Your task to perform on an android device: Show me recent news Image 0: 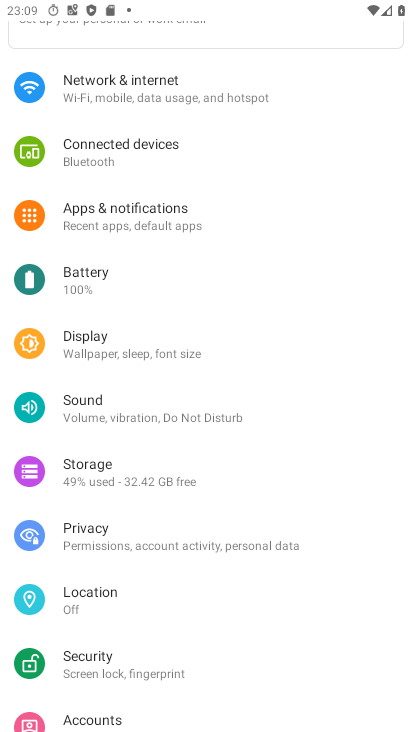
Step 0: press home button
Your task to perform on an android device: Show me recent news Image 1: 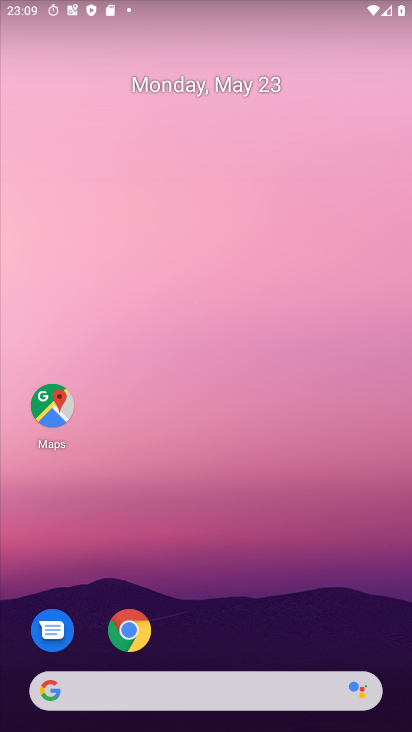
Step 1: click (92, 694)
Your task to perform on an android device: Show me recent news Image 2: 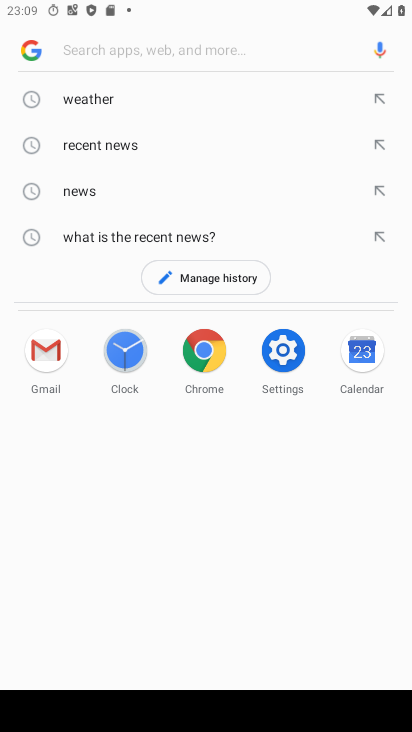
Step 2: click (105, 149)
Your task to perform on an android device: Show me recent news Image 3: 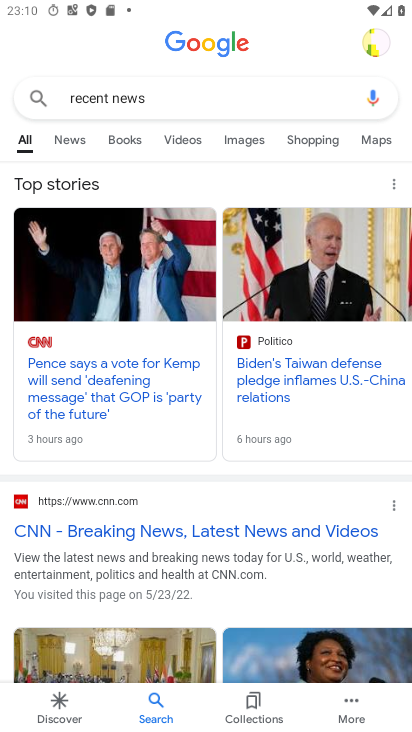
Step 3: click (106, 329)
Your task to perform on an android device: Show me recent news Image 4: 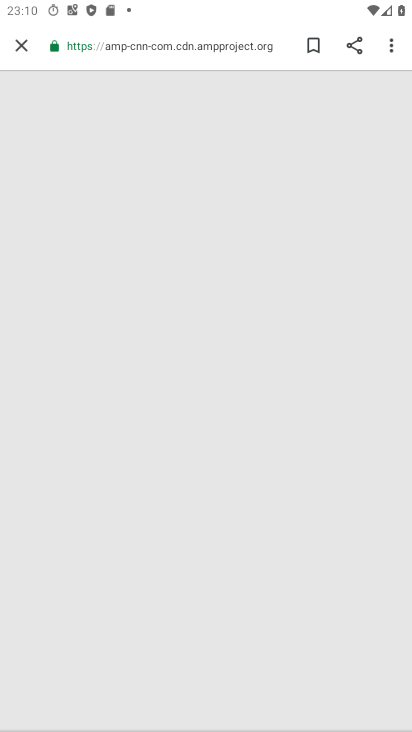
Step 4: click (17, 53)
Your task to perform on an android device: Show me recent news Image 5: 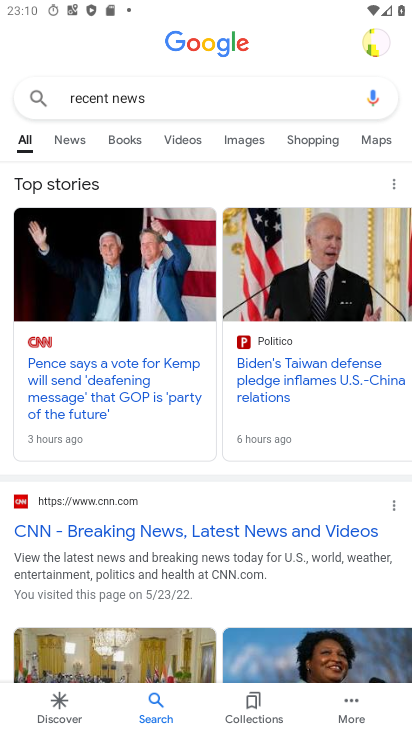
Step 5: click (120, 404)
Your task to perform on an android device: Show me recent news Image 6: 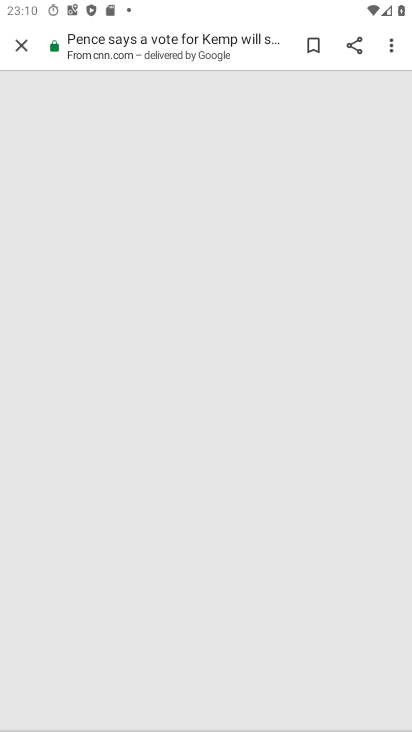
Step 6: click (15, 52)
Your task to perform on an android device: Show me recent news Image 7: 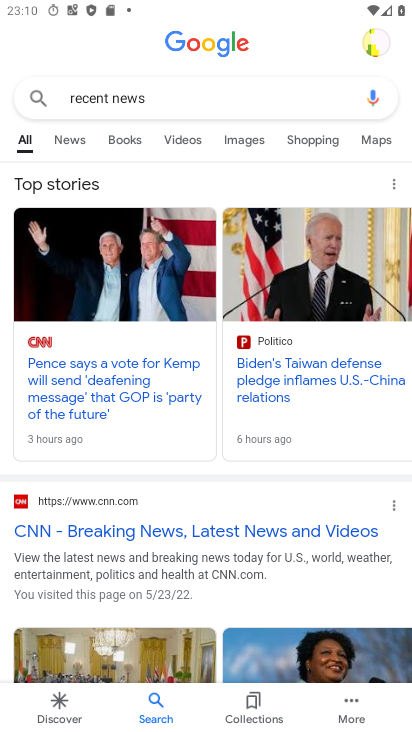
Step 7: click (78, 137)
Your task to perform on an android device: Show me recent news Image 8: 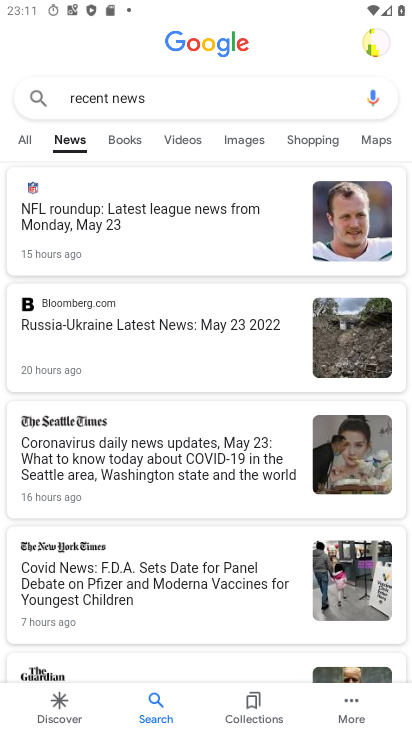
Step 8: drag from (112, 513) to (130, 162)
Your task to perform on an android device: Show me recent news Image 9: 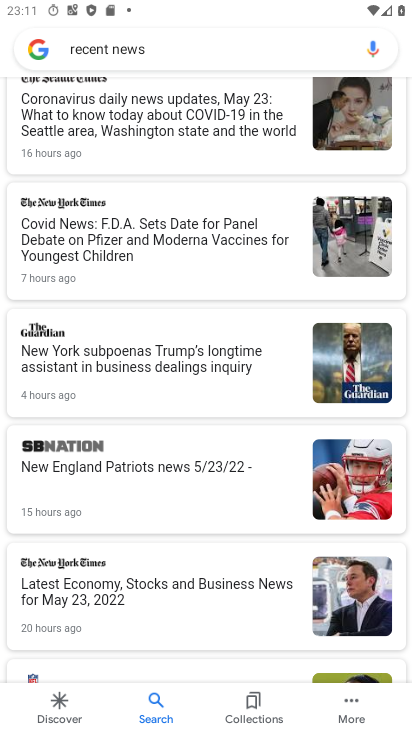
Step 9: drag from (113, 498) to (138, 164)
Your task to perform on an android device: Show me recent news Image 10: 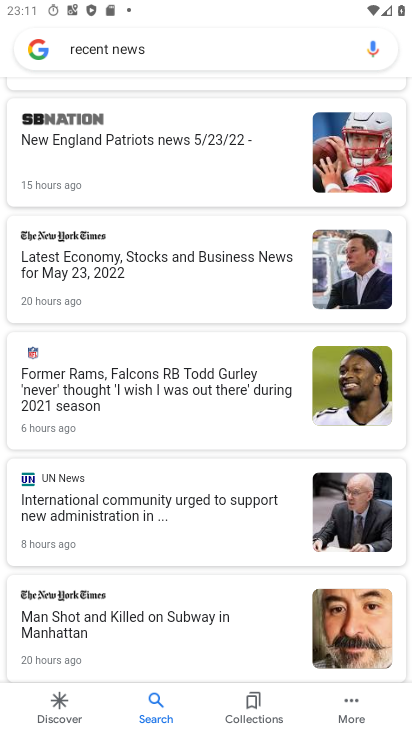
Step 10: drag from (100, 541) to (93, 306)
Your task to perform on an android device: Show me recent news Image 11: 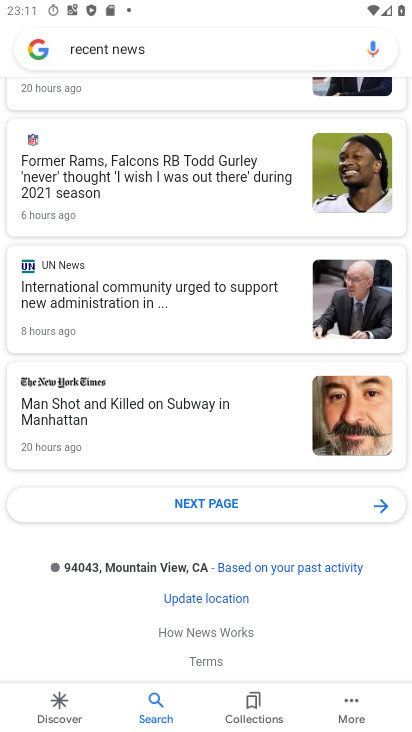
Step 11: click (66, 164)
Your task to perform on an android device: Show me recent news Image 12: 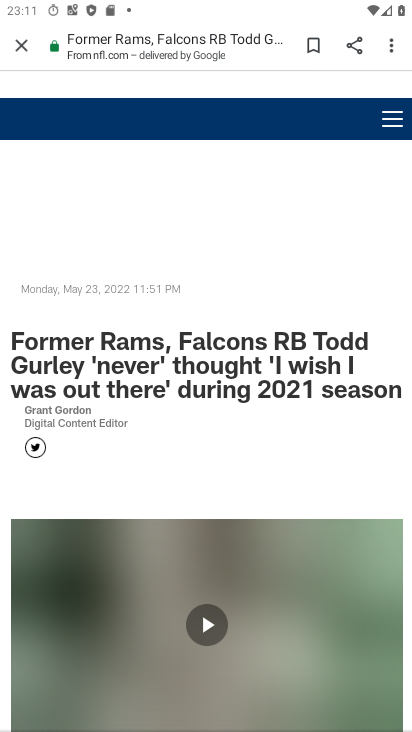
Step 12: task complete